Your task to perform on an android device: turn off smart reply in the gmail app Image 0: 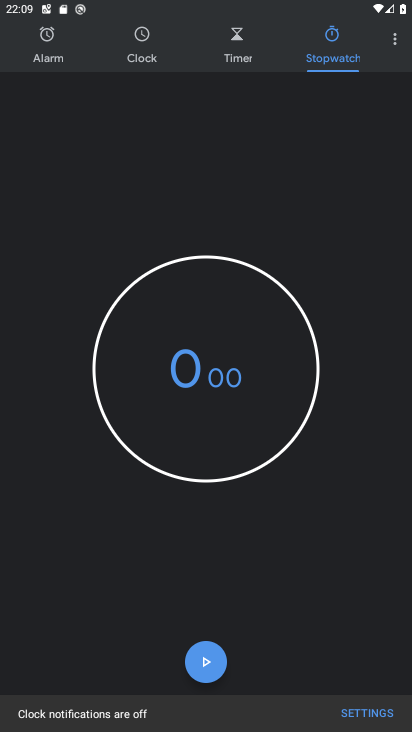
Step 0: press home button
Your task to perform on an android device: turn off smart reply in the gmail app Image 1: 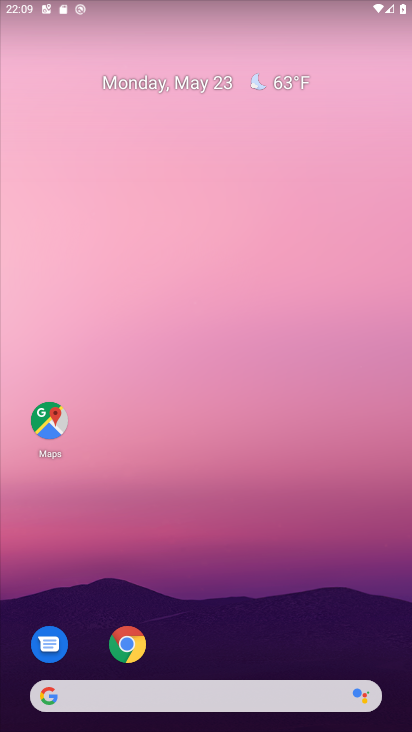
Step 1: drag from (215, 657) to (213, 128)
Your task to perform on an android device: turn off smart reply in the gmail app Image 2: 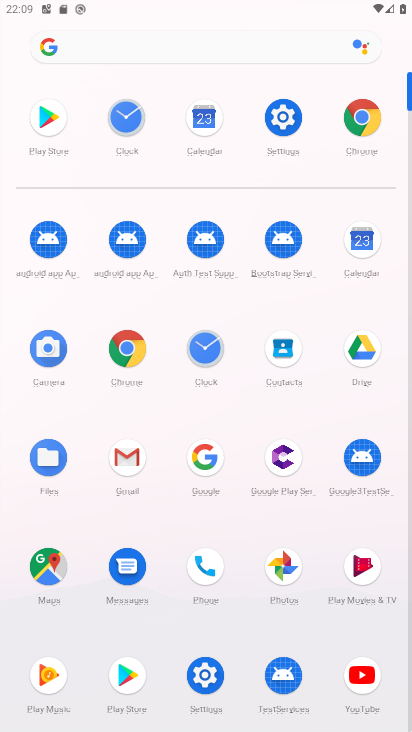
Step 2: click (128, 450)
Your task to perform on an android device: turn off smart reply in the gmail app Image 3: 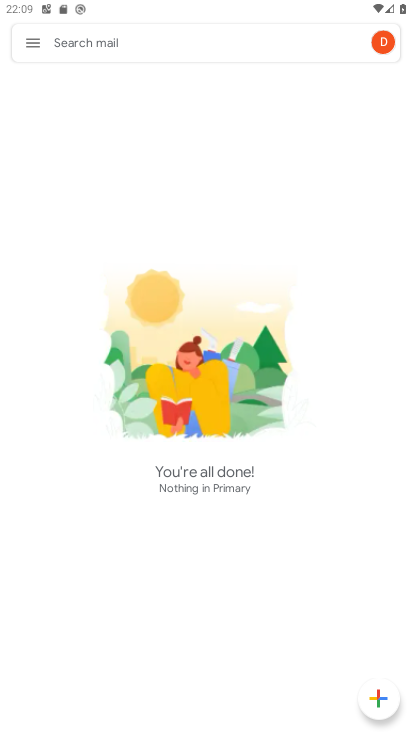
Step 3: click (30, 36)
Your task to perform on an android device: turn off smart reply in the gmail app Image 4: 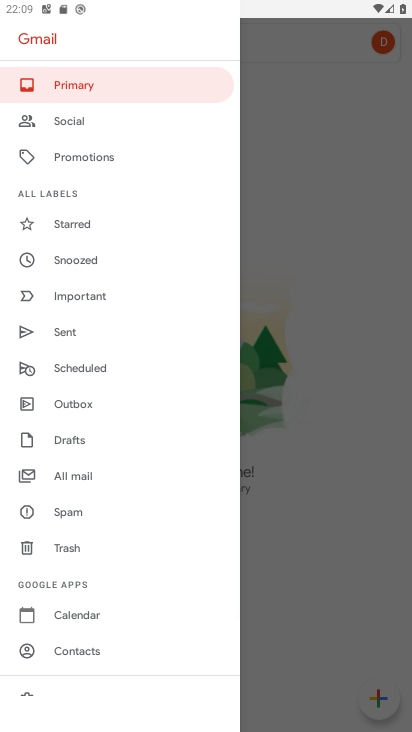
Step 4: drag from (92, 622) to (104, 59)
Your task to perform on an android device: turn off smart reply in the gmail app Image 5: 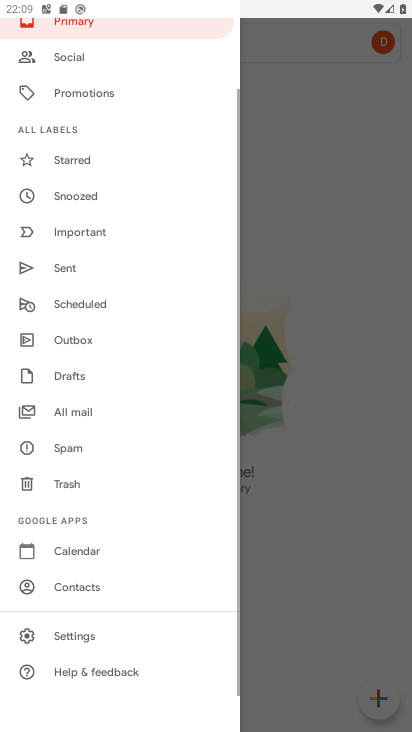
Step 5: click (104, 628)
Your task to perform on an android device: turn off smart reply in the gmail app Image 6: 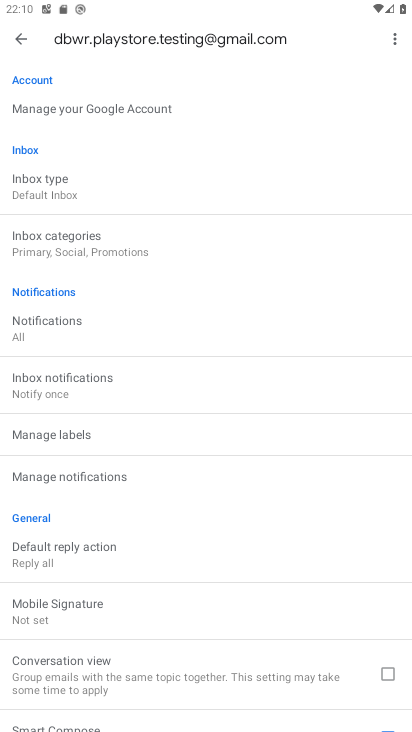
Step 6: task complete